Your task to perform on an android device: See recent photos Image 0: 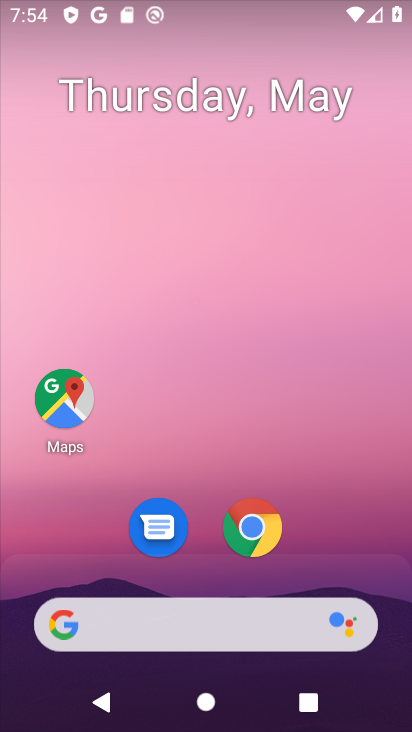
Step 0: press home button
Your task to perform on an android device: See recent photos Image 1: 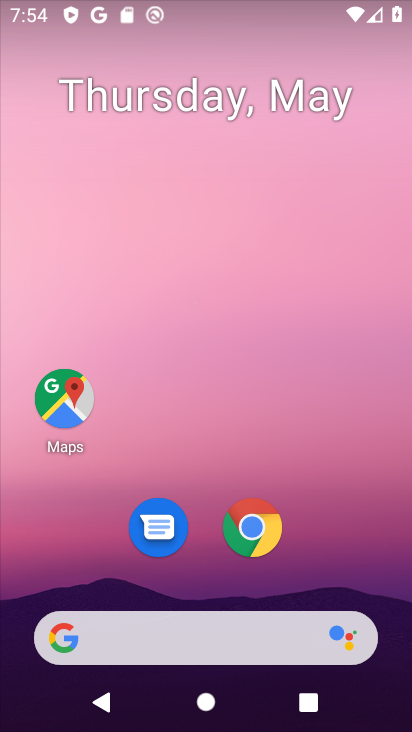
Step 1: drag from (6, 613) to (231, 228)
Your task to perform on an android device: See recent photos Image 2: 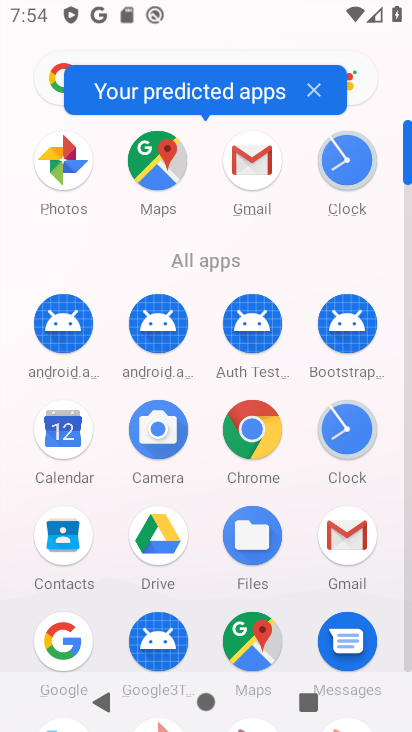
Step 2: click (49, 177)
Your task to perform on an android device: See recent photos Image 3: 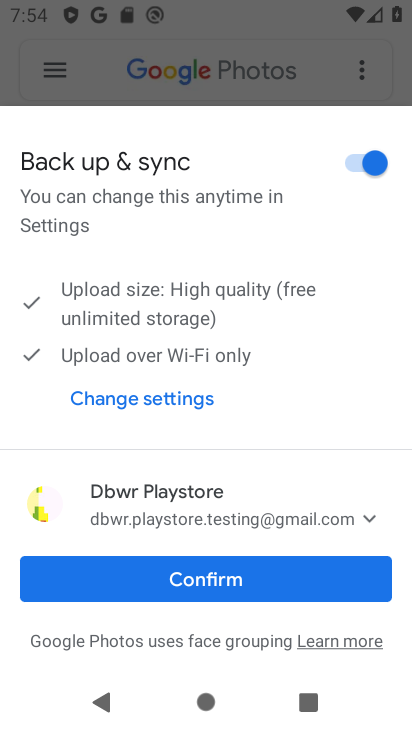
Step 3: click (185, 591)
Your task to perform on an android device: See recent photos Image 4: 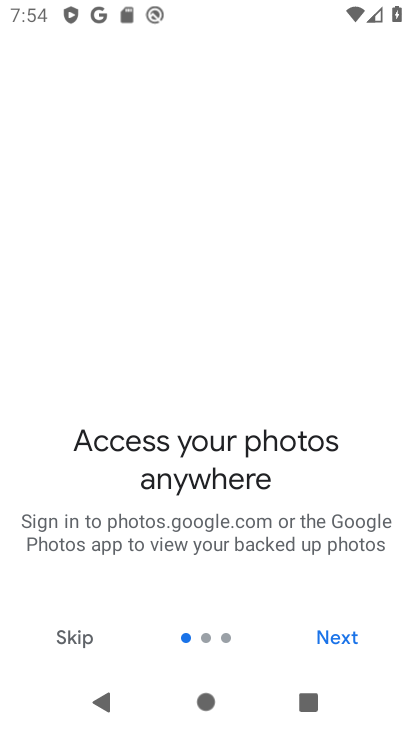
Step 4: click (336, 633)
Your task to perform on an android device: See recent photos Image 5: 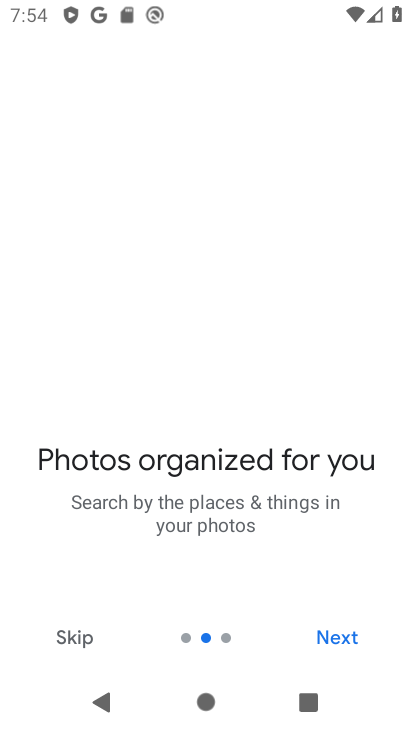
Step 5: click (336, 633)
Your task to perform on an android device: See recent photos Image 6: 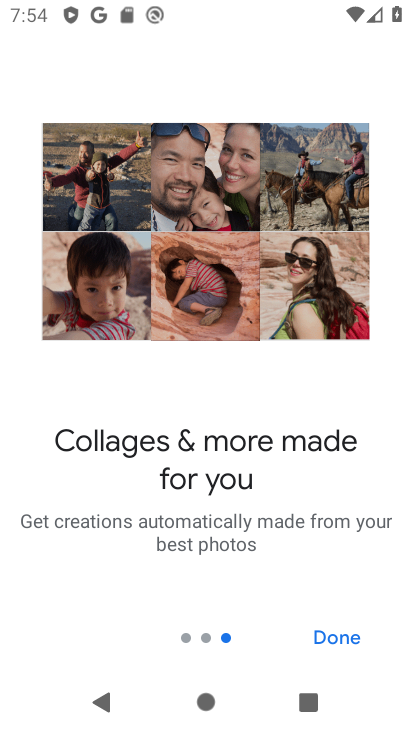
Step 6: click (336, 633)
Your task to perform on an android device: See recent photos Image 7: 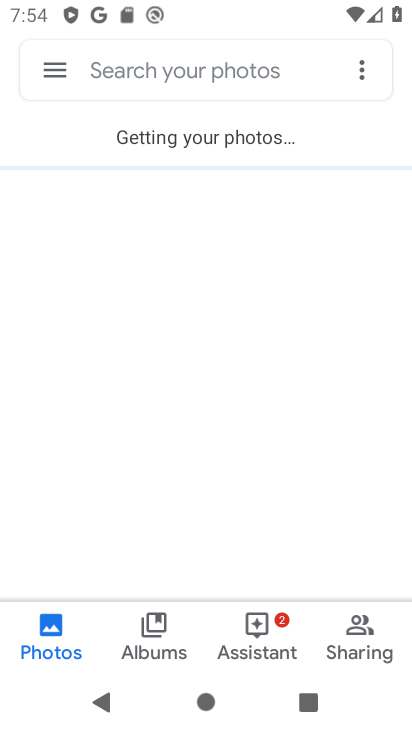
Step 7: click (50, 628)
Your task to perform on an android device: See recent photos Image 8: 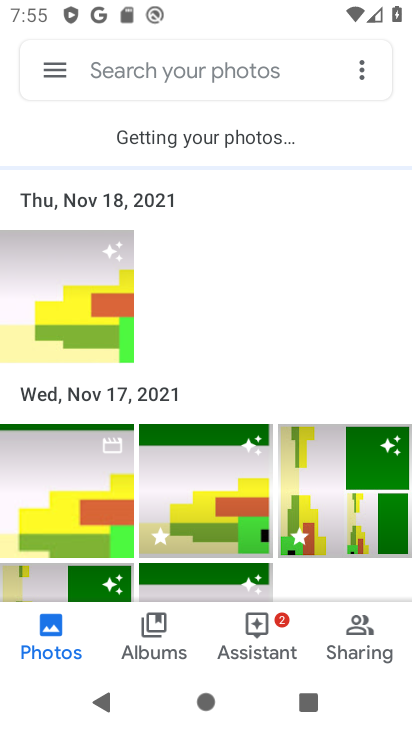
Step 8: click (55, 59)
Your task to perform on an android device: See recent photos Image 9: 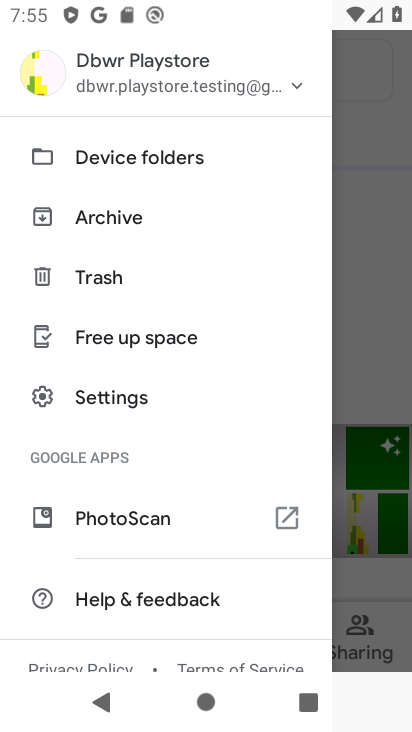
Step 9: click (378, 281)
Your task to perform on an android device: See recent photos Image 10: 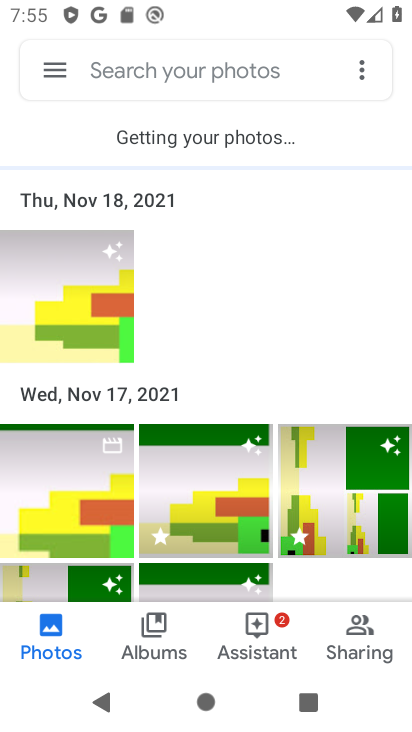
Step 10: task complete